Your task to perform on an android device: turn on data saver in the chrome app Image 0: 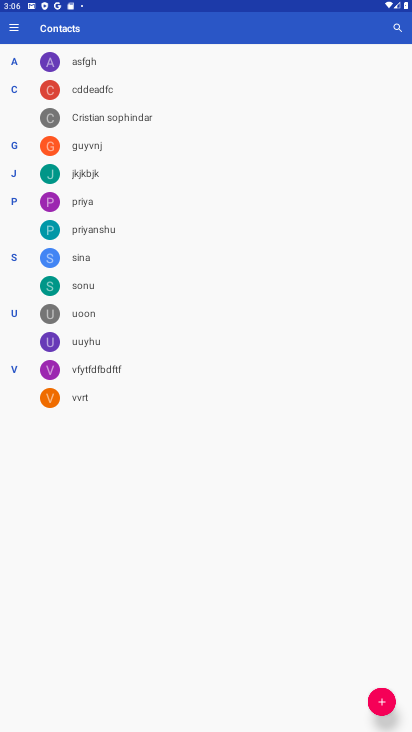
Step 0: press home button
Your task to perform on an android device: turn on data saver in the chrome app Image 1: 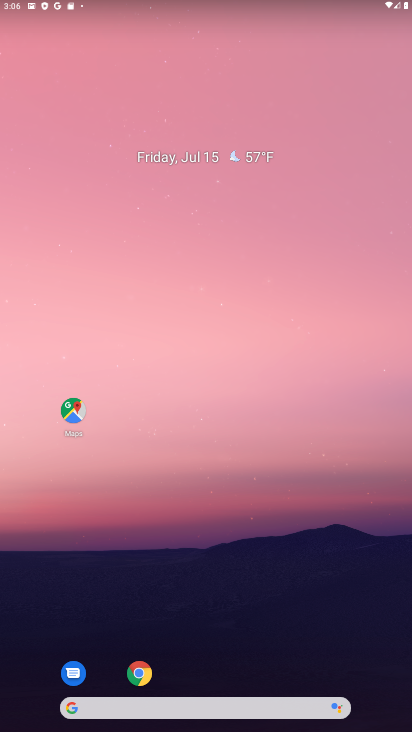
Step 1: click (141, 675)
Your task to perform on an android device: turn on data saver in the chrome app Image 2: 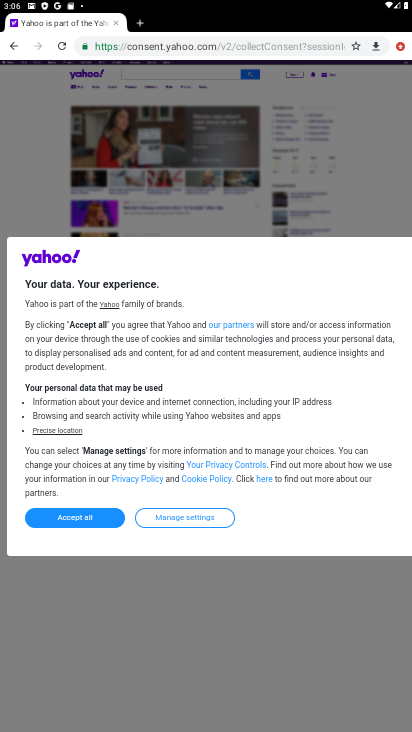
Step 2: click (88, 512)
Your task to perform on an android device: turn on data saver in the chrome app Image 3: 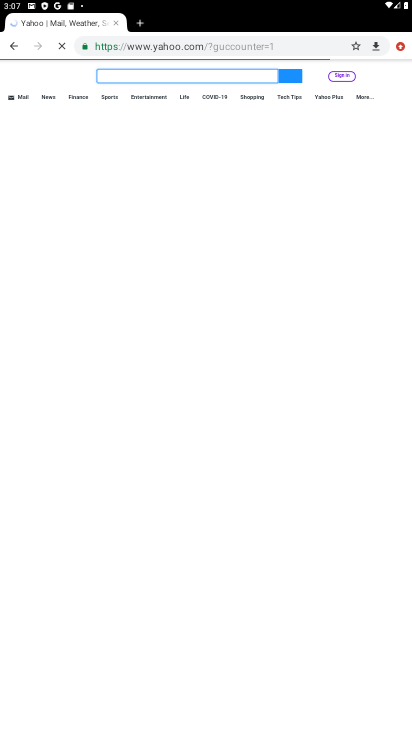
Step 3: click (400, 41)
Your task to perform on an android device: turn on data saver in the chrome app Image 4: 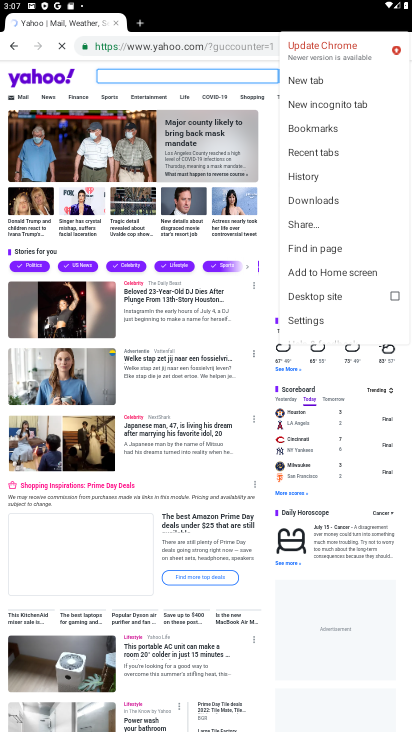
Step 4: click (312, 321)
Your task to perform on an android device: turn on data saver in the chrome app Image 5: 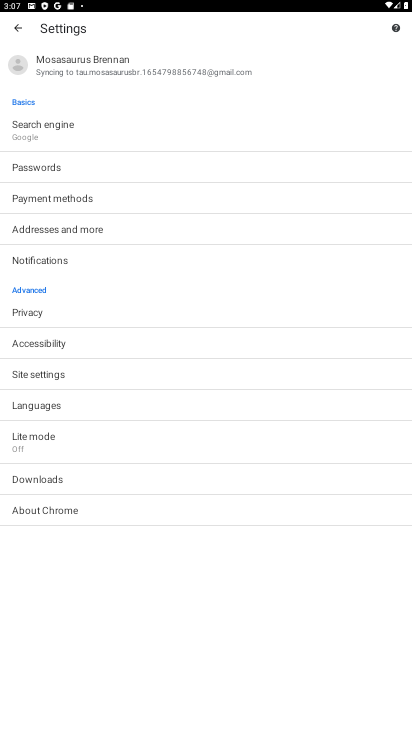
Step 5: click (42, 378)
Your task to perform on an android device: turn on data saver in the chrome app Image 6: 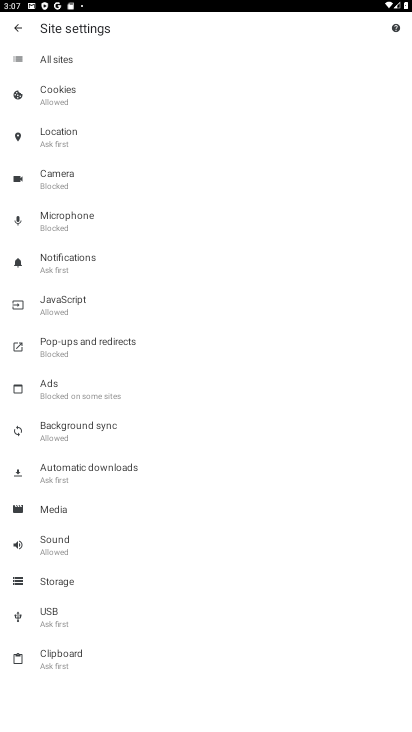
Step 6: press back button
Your task to perform on an android device: turn on data saver in the chrome app Image 7: 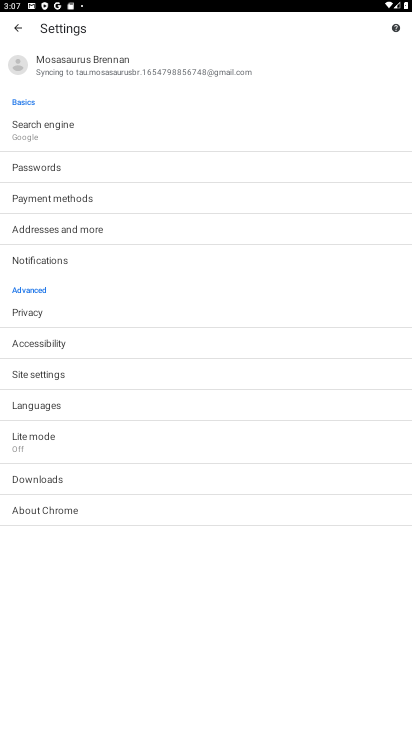
Step 7: click (51, 439)
Your task to perform on an android device: turn on data saver in the chrome app Image 8: 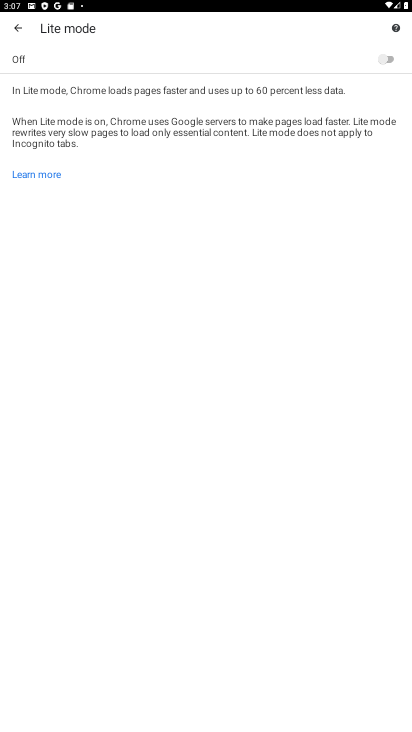
Step 8: click (392, 53)
Your task to perform on an android device: turn on data saver in the chrome app Image 9: 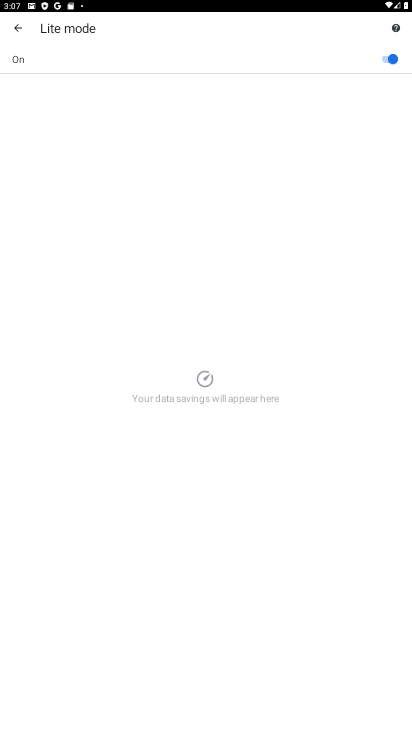
Step 9: task complete